Your task to perform on an android device: set the stopwatch Image 0: 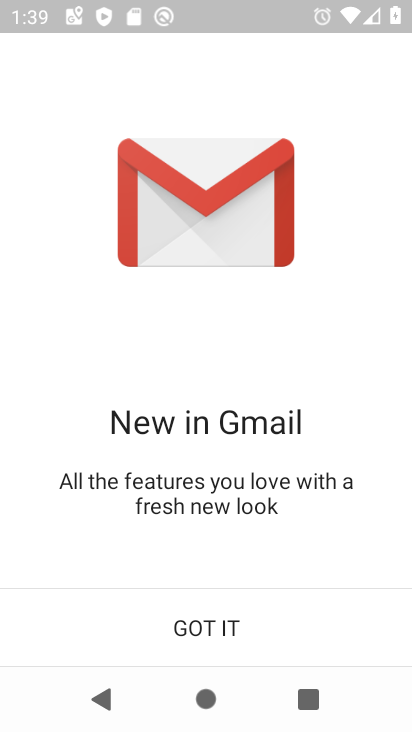
Step 0: press home button
Your task to perform on an android device: set the stopwatch Image 1: 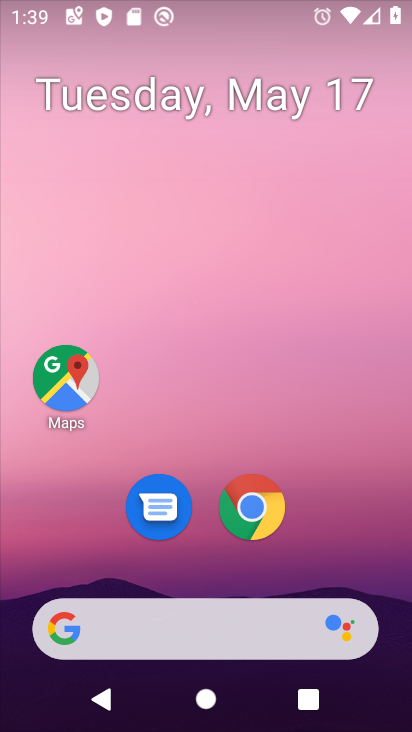
Step 1: drag from (280, 547) to (300, 290)
Your task to perform on an android device: set the stopwatch Image 2: 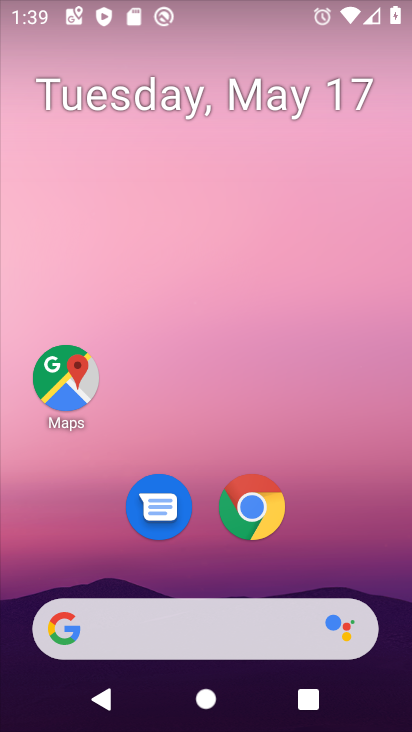
Step 2: drag from (290, 640) to (289, 296)
Your task to perform on an android device: set the stopwatch Image 3: 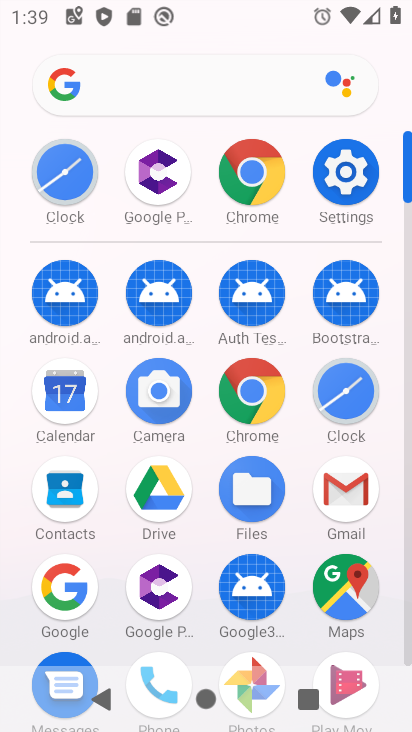
Step 3: click (320, 391)
Your task to perform on an android device: set the stopwatch Image 4: 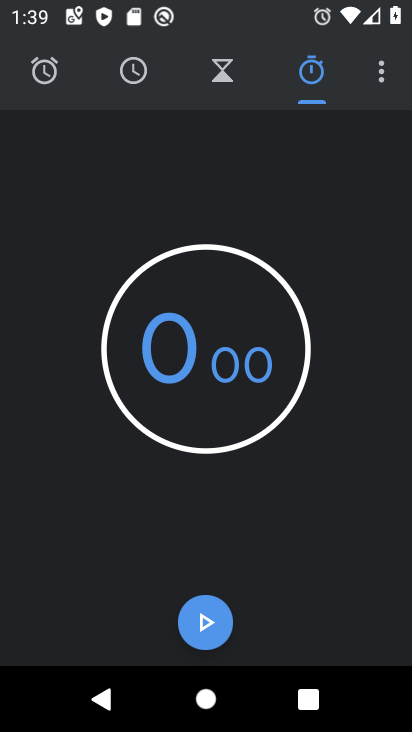
Step 4: click (316, 67)
Your task to perform on an android device: set the stopwatch Image 5: 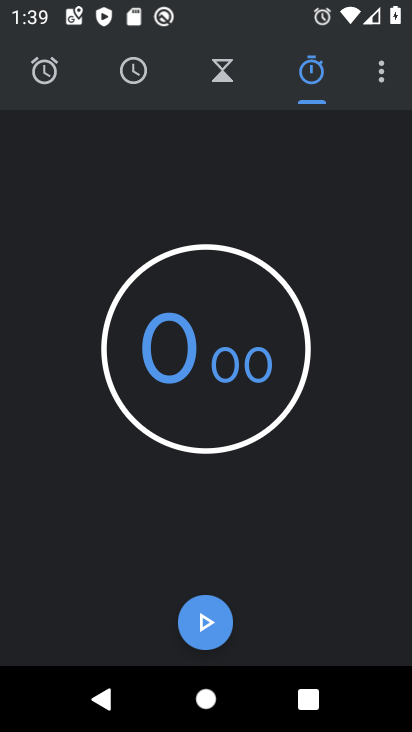
Step 5: task complete